Your task to perform on an android device: Do I have any events tomorrow? Image 0: 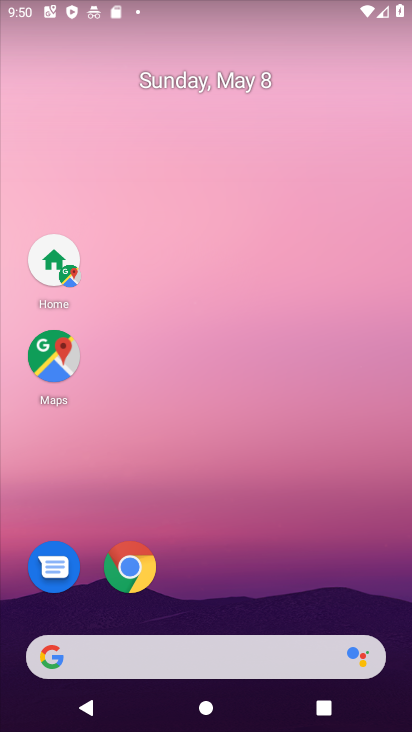
Step 0: drag from (325, 536) to (307, 39)
Your task to perform on an android device: Do I have any events tomorrow? Image 1: 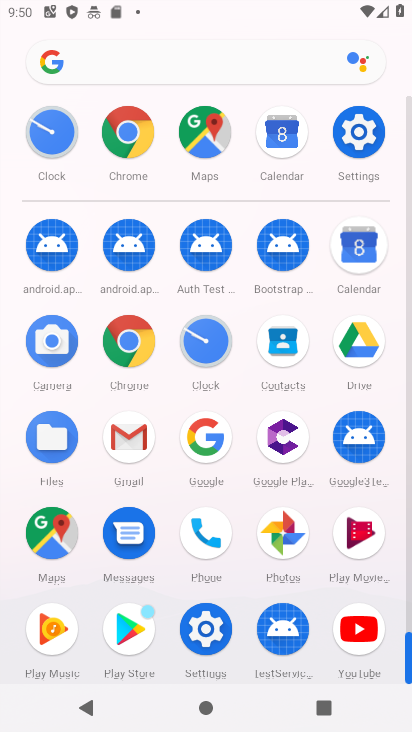
Step 1: click (281, 142)
Your task to perform on an android device: Do I have any events tomorrow? Image 2: 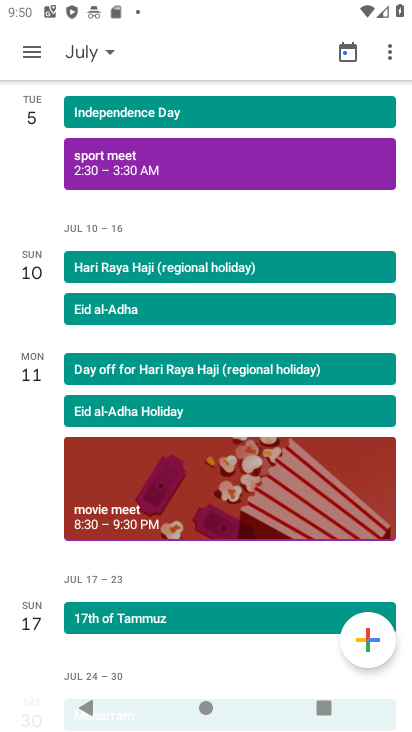
Step 2: click (109, 52)
Your task to perform on an android device: Do I have any events tomorrow? Image 3: 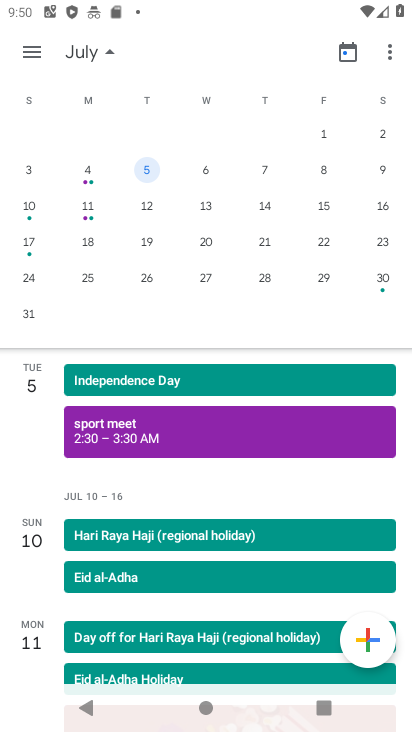
Step 3: drag from (85, 243) to (386, 293)
Your task to perform on an android device: Do I have any events tomorrow? Image 4: 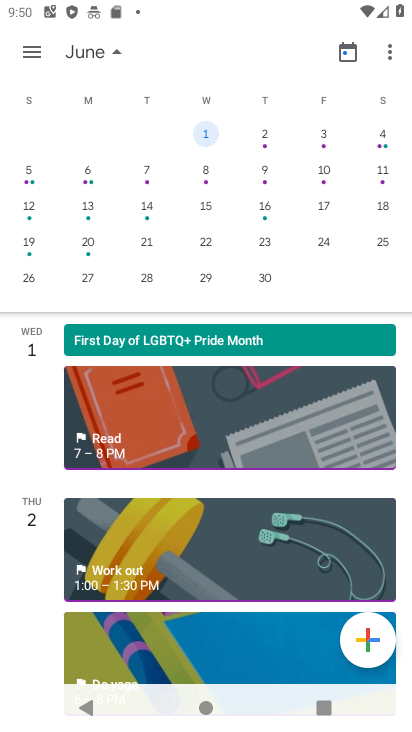
Step 4: drag from (84, 231) to (392, 225)
Your task to perform on an android device: Do I have any events tomorrow? Image 5: 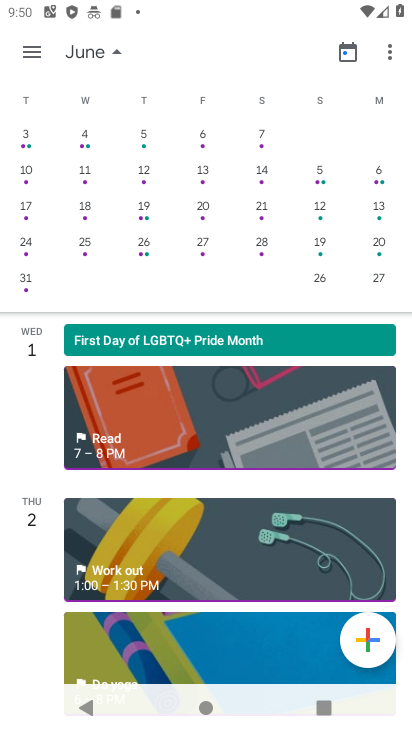
Step 5: drag from (96, 193) to (369, 223)
Your task to perform on an android device: Do I have any events tomorrow? Image 6: 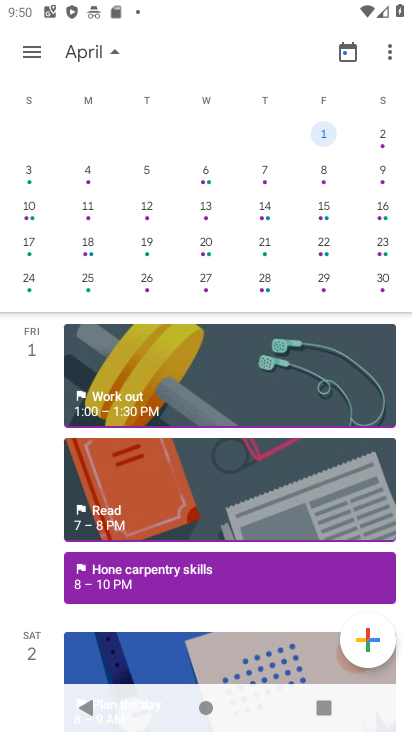
Step 6: drag from (251, 211) to (26, 208)
Your task to perform on an android device: Do I have any events tomorrow? Image 7: 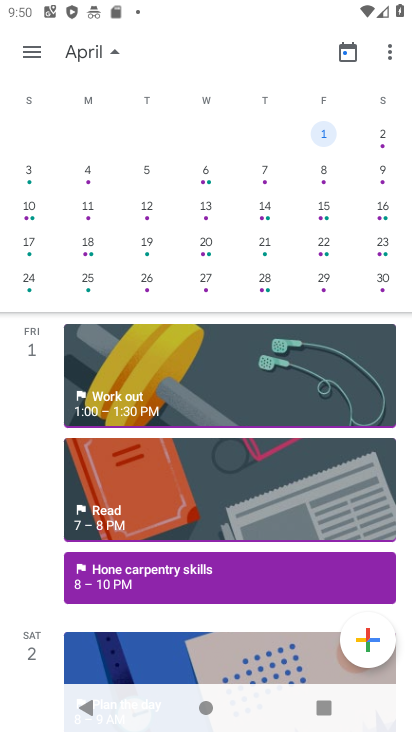
Step 7: click (9, 188)
Your task to perform on an android device: Do I have any events tomorrow? Image 8: 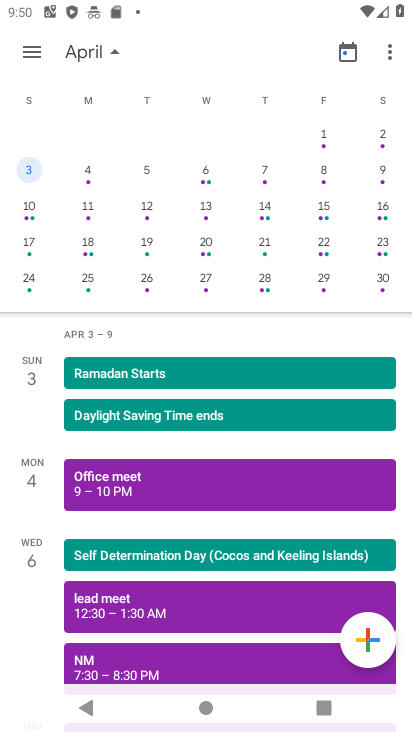
Step 8: click (0, 188)
Your task to perform on an android device: Do I have any events tomorrow? Image 9: 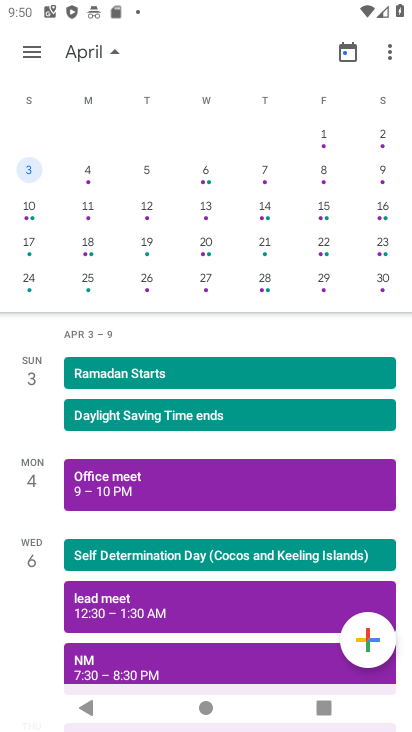
Step 9: drag from (308, 223) to (31, 209)
Your task to perform on an android device: Do I have any events tomorrow? Image 10: 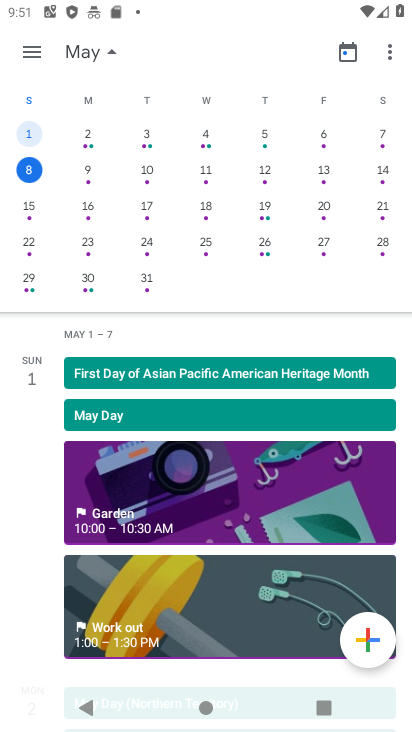
Step 10: drag from (123, 246) to (75, 184)
Your task to perform on an android device: Do I have any events tomorrow? Image 11: 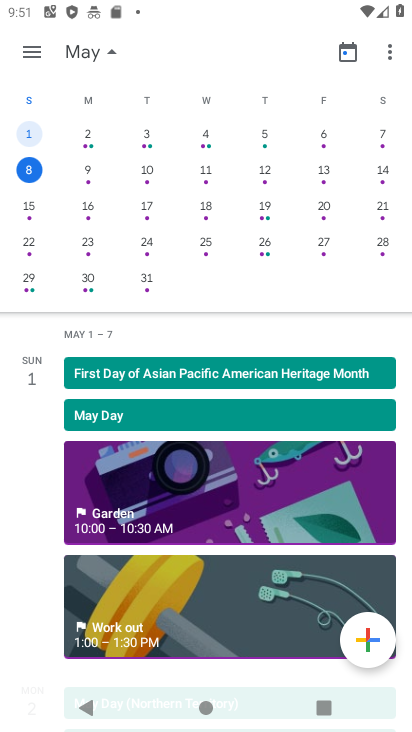
Step 11: drag from (145, 184) to (18, 179)
Your task to perform on an android device: Do I have any events tomorrow? Image 12: 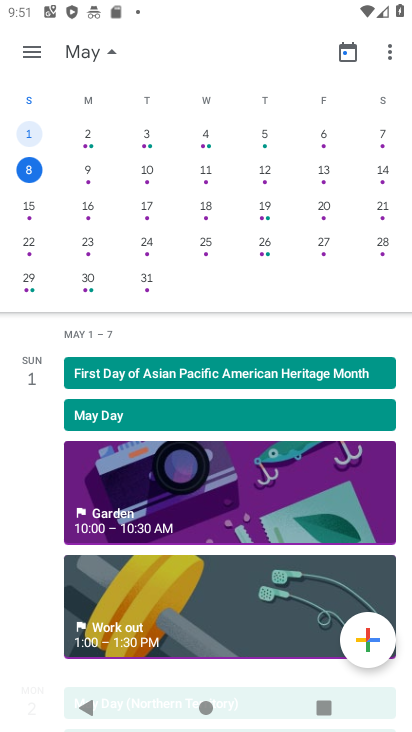
Step 12: drag from (295, 222) to (28, 262)
Your task to perform on an android device: Do I have any events tomorrow? Image 13: 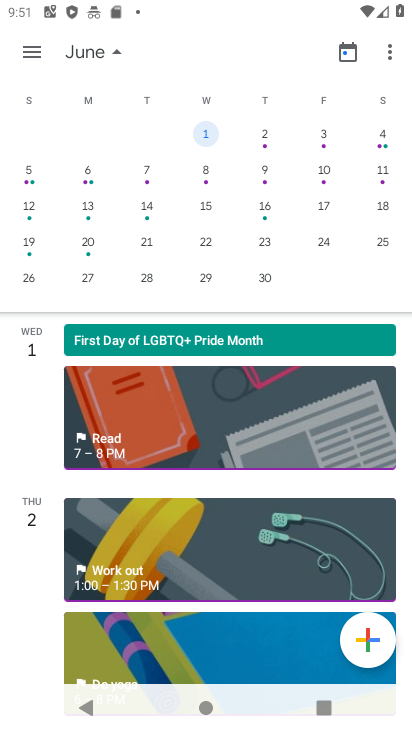
Step 13: drag from (127, 214) to (396, 222)
Your task to perform on an android device: Do I have any events tomorrow? Image 14: 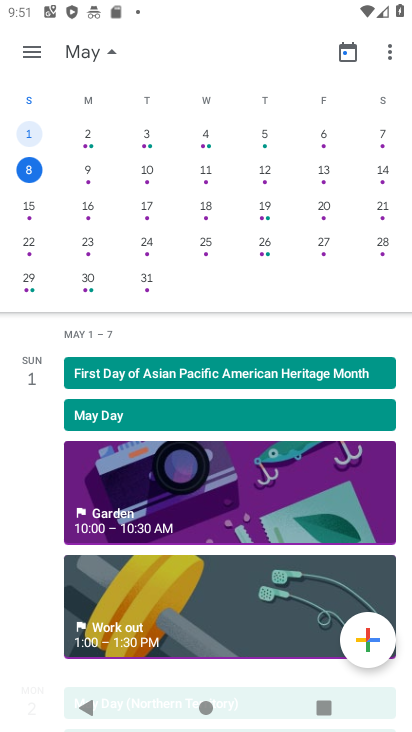
Step 14: drag from (100, 209) to (399, 214)
Your task to perform on an android device: Do I have any events tomorrow? Image 15: 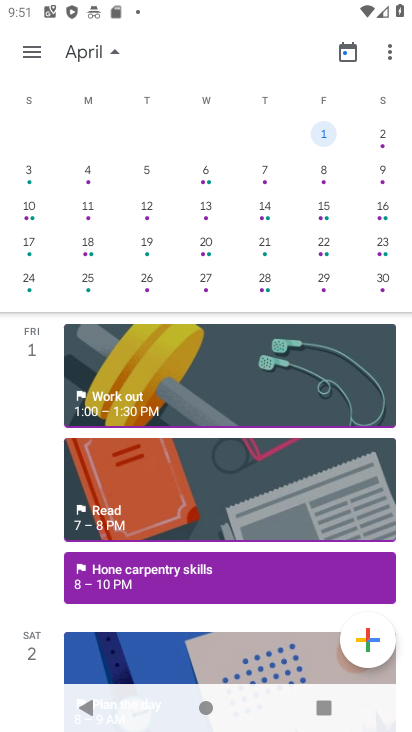
Step 15: click (408, 195)
Your task to perform on an android device: Do I have any events tomorrow? Image 16: 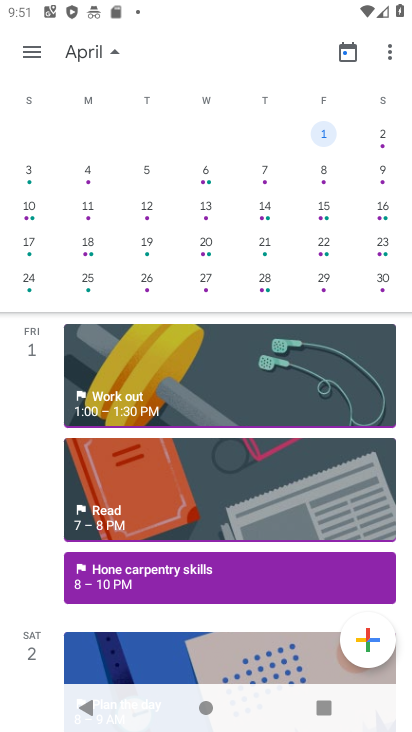
Step 16: drag from (130, 173) to (399, 222)
Your task to perform on an android device: Do I have any events tomorrow? Image 17: 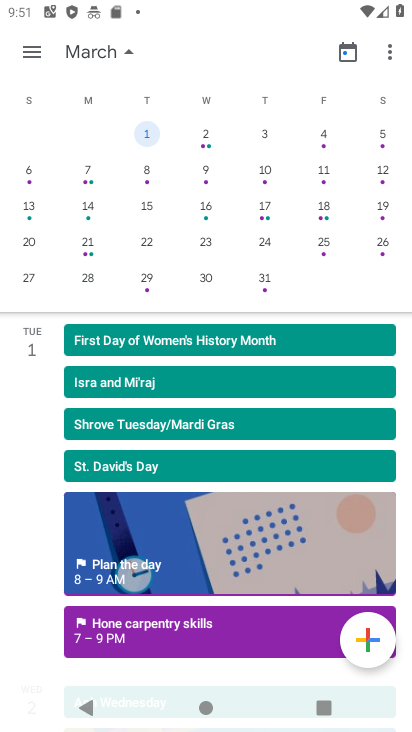
Step 17: drag from (318, 213) to (23, 200)
Your task to perform on an android device: Do I have any events tomorrow? Image 18: 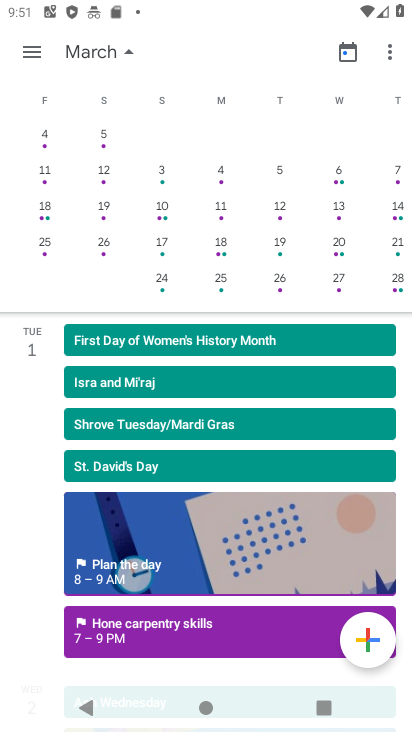
Step 18: drag from (240, 187) to (3, 183)
Your task to perform on an android device: Do I have any events tomorrow? Image 19: 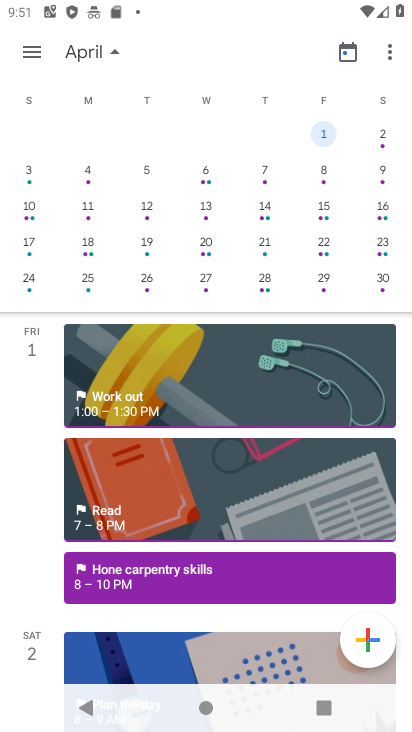
Step 19: drag from (258, 205) to (2, 197)
Your task to perform on an android device: Do I have any events tomorrow? Image 20: 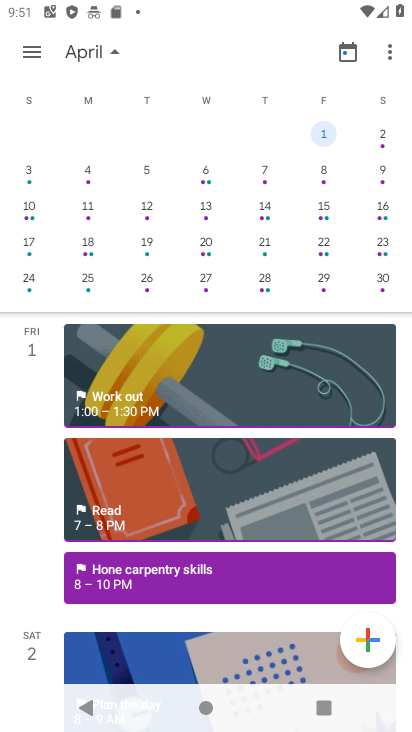
Step 20: drag from (278, 198) to (20, 213)
Your task to perform on an android device: Do I have any events tomorrow? Image 21: 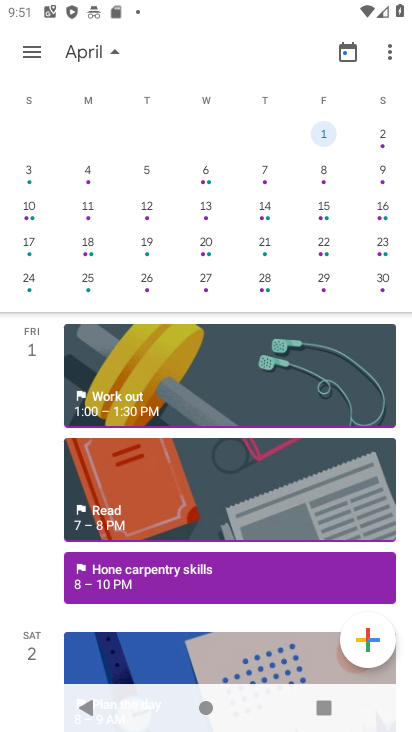
Step 21: drag from (259, 209) to (17, 133)
Your task to perform on an android device: Do I have any events tomorrow? Image 22: 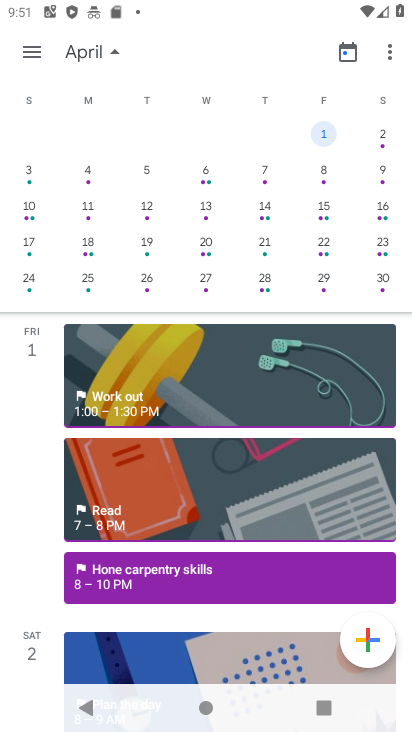
Step 22: drag from (335, 201) to (0, 171)
Your task to perform on an android device: Do I have any events tomorrow? Image 23: 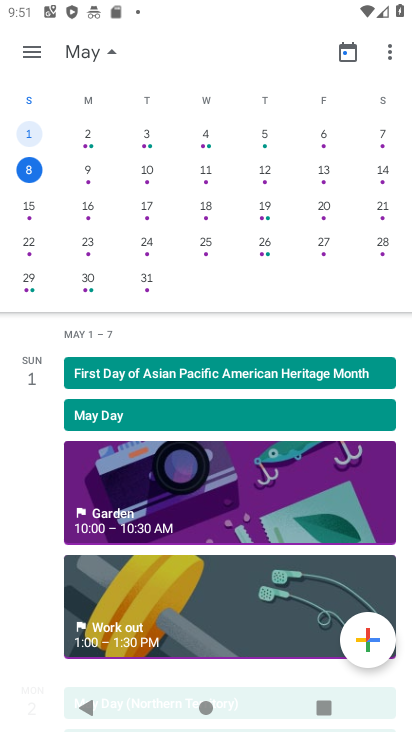
Step 23: drag from (193, 594) to (196, 99)
Your task to perform on an android device: Do I have any events tomorrow? Image 24: 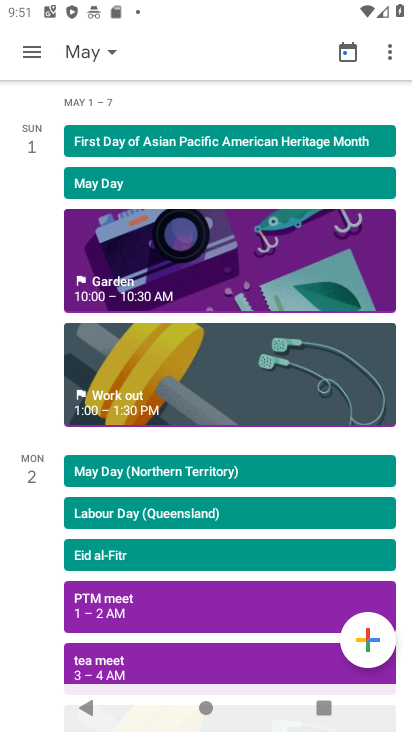
Step 24: drag from (166, 501) to (177, 21)
Your task to perform on an android device: Do I have any events tomorrow? Image 25: 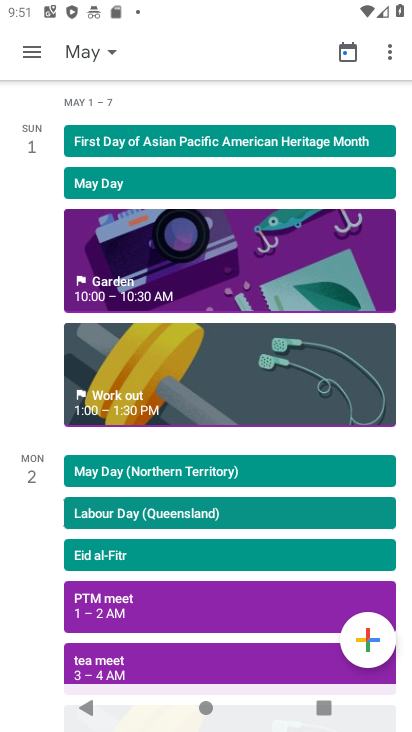
Step 25: drag from (255, 532) to (280, 2)
Your task to perform on an android device: Do I have any events tomorrow? Image 26: 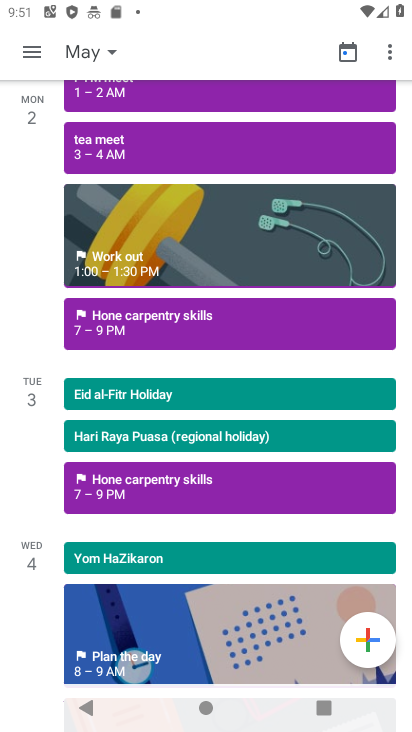
Step 26: drag from (270, 623) to (189, 61)
Your task to perform on an android device: Do I have any events tomorrow? Image 27: 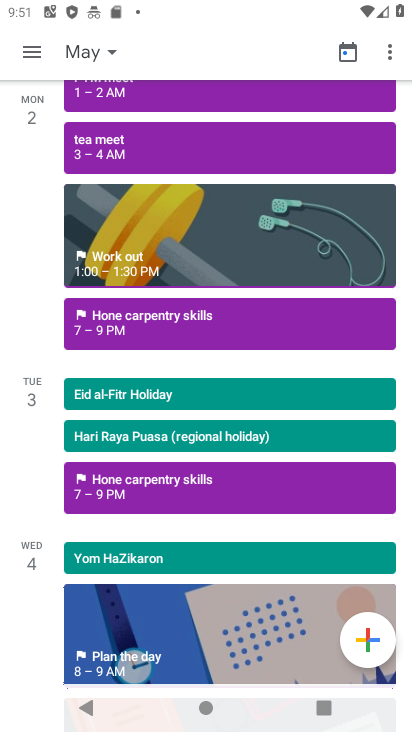
Step 27: drag from (178, 283) to (147, 43)
Your task to perform on an android device: Do I have any events tomorrow? Image 28: 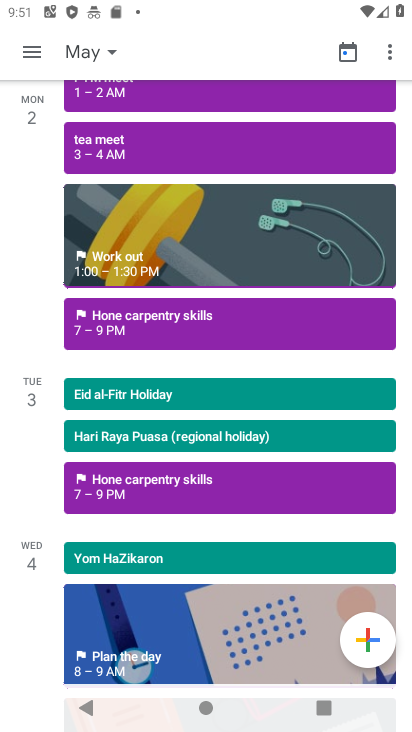
Step 28: drag from (139, 582) to (139, 144)
Your task to perform on an android device: Do I have any events tomorrow? Image 29: 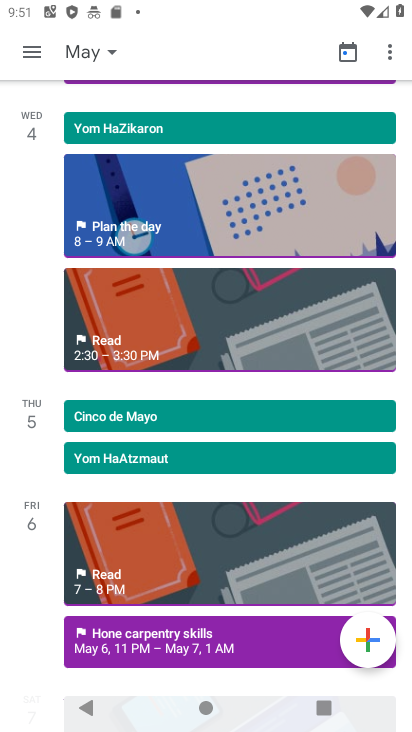
Step 29: drag from (169, 580) to (141, 22)
Your task to perform on an android device: Do I have any events tomorrow? Image 30: 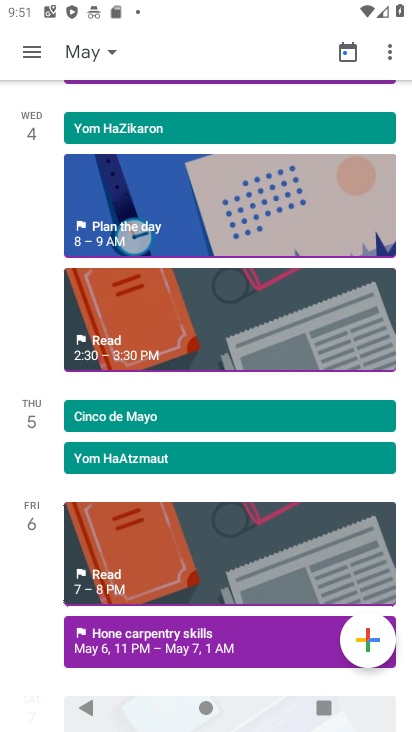
Step 30: drag from (187, 499) to (150, 110)
Your task to perform on an android device: Do I have any events tomorrow? Image 31: 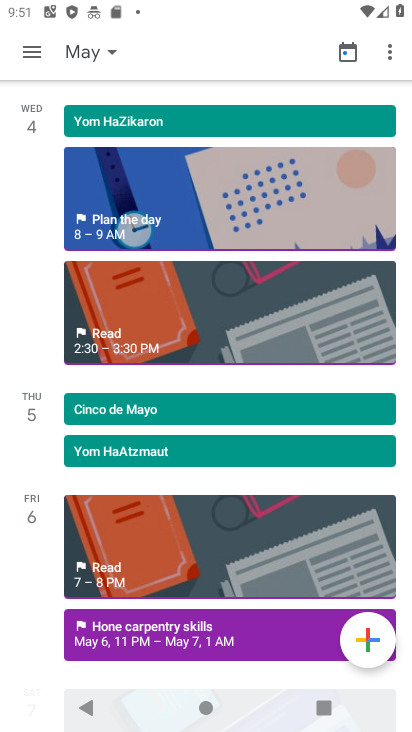
Step 31: drag from (169, 550) to (96, 10)
Your task to perform on an android device: Do I have any events tomorrow? Image 32: 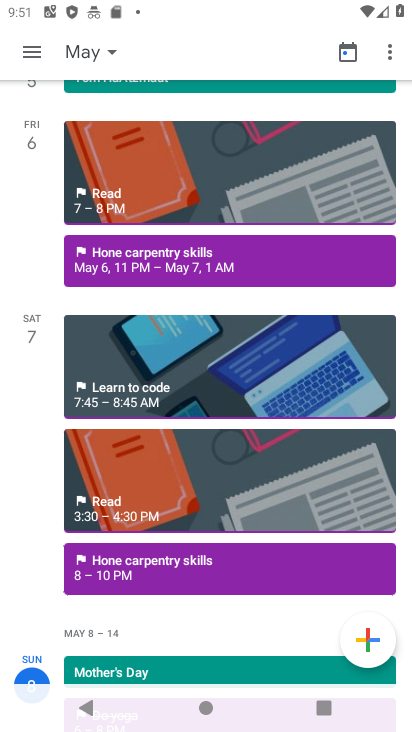
Step 32: drag from (134, 523) to (132, 42)
Your task to perform on an android device: Do I have any events tomorrow? Image 33: 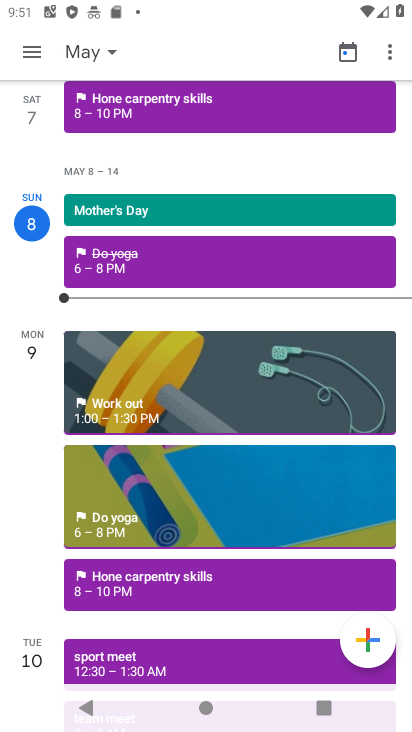
Step 33: drag from (152, 484) to (191, 172)
Your task to perform on an android device: Do I have any events tomorrow? Image 34: 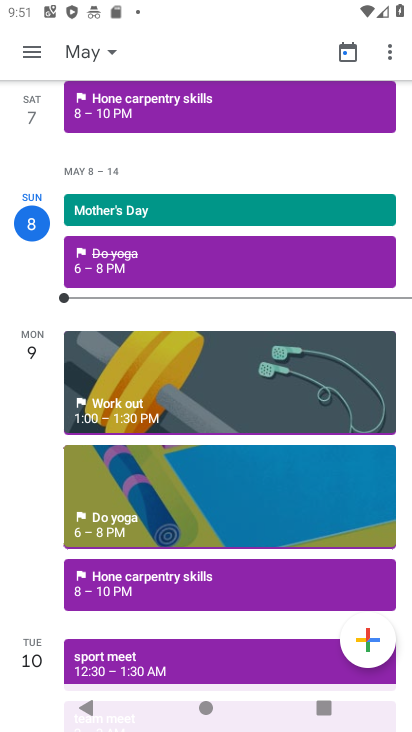
Step 34: drag from (174, 597) to (171, 95)
Your task to perform on an android device: Do I have any events tomorrow? Image 35: 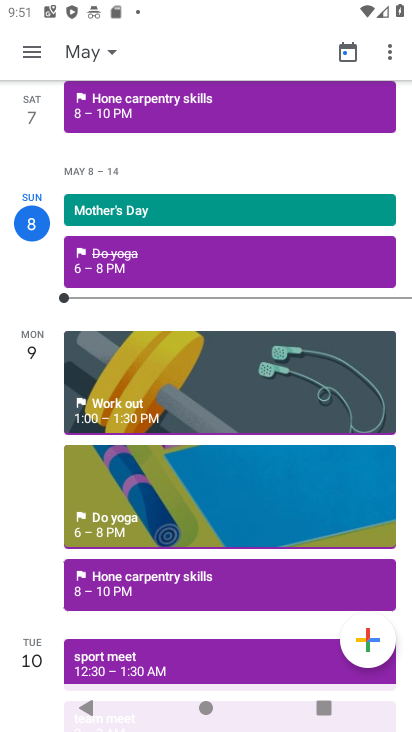
Step 35: drag from (218, 521) to (112, 68)
Your task to perform on an android device: Do I have any events tomorrow? Image 36: 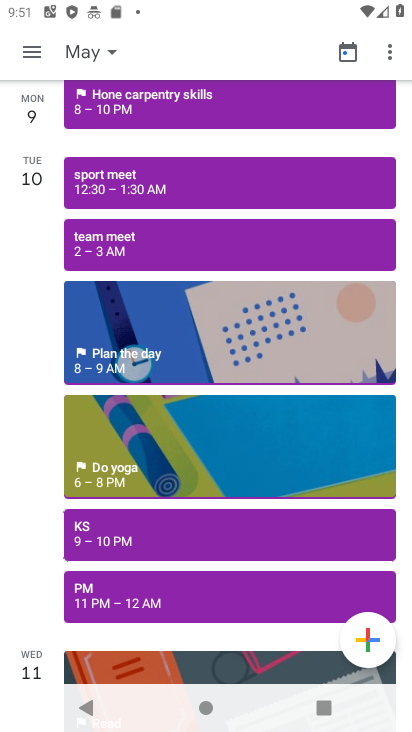
Step 36: drag from (80, 579) to (63, 231)
Your task to perform on an android device: Do I have any events tomorrow? Image 37: 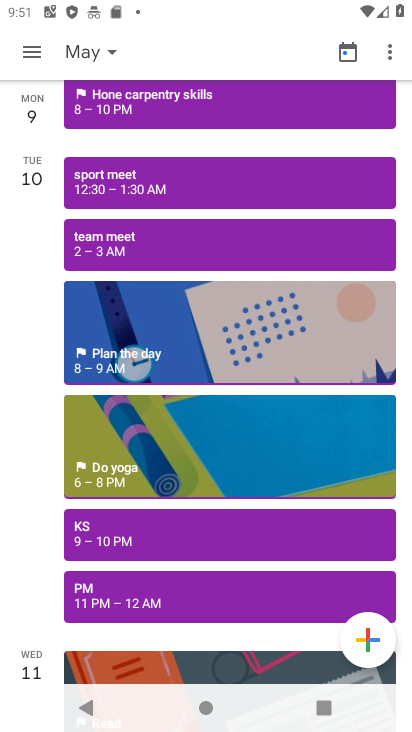
Step 37: drag from (115, 540) to (106, 130)
Your task to perform on an android device: Do I have any events tomorrow? Image 38: 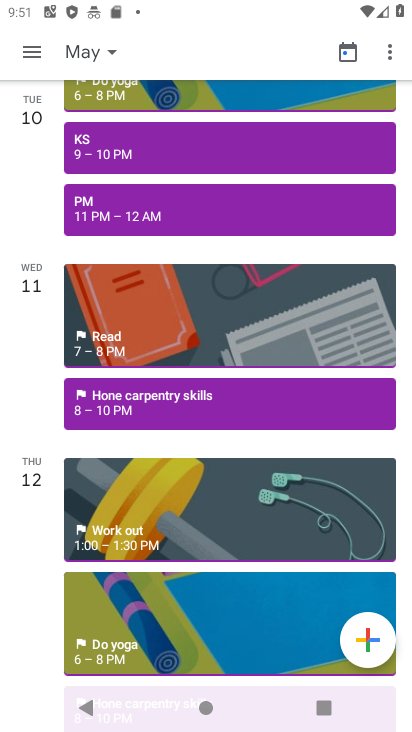
Step 38: drag from (219, 561) to (163, 134)
Your task to perform on an android device: Do I have any events tomorrow? Image 39: 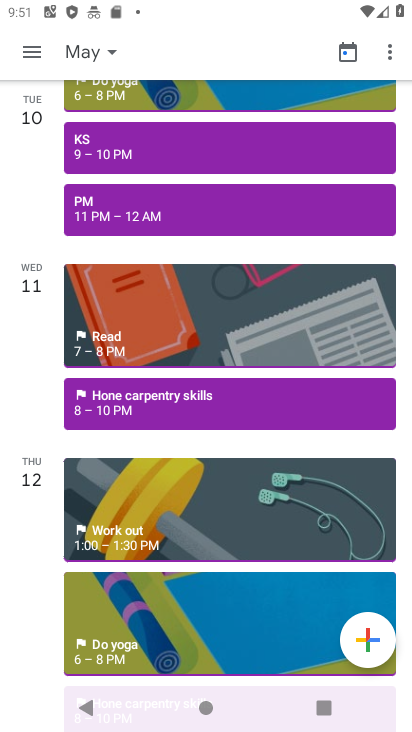
Step 39: drag from (161, 497) to (121, 93)
Your task to perform on an android device: Do I have any events tomorrow? Image 40: 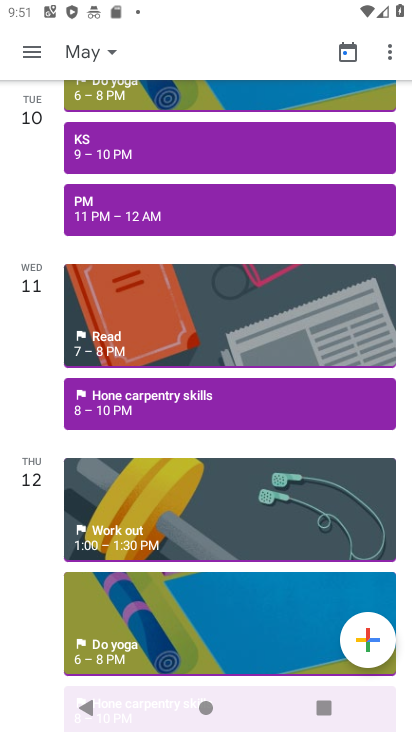
Step 40: click (144, 109)
Your task to perform on an android device: Do I have any events tomorrow? Image 41: 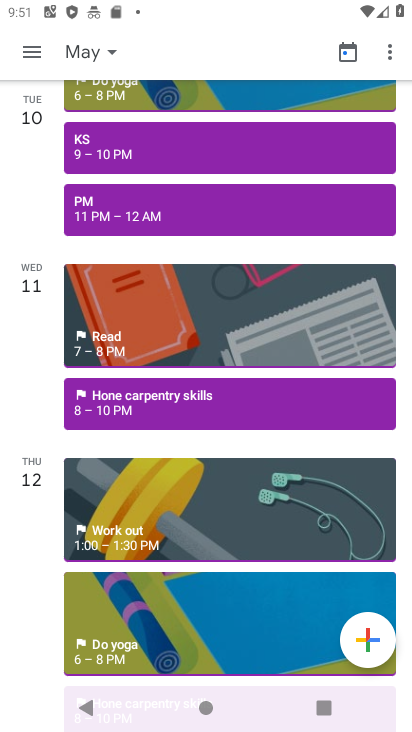
Step 41: click (144, 134)
Your task to perform on an android device: Do I have any events tomorrow? Image 42: 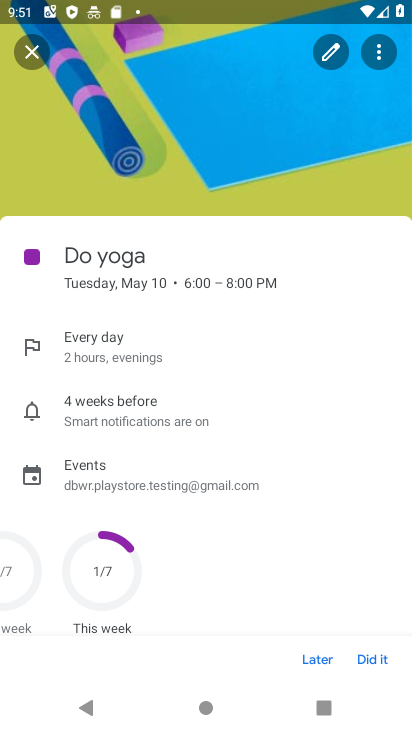
Step 42: task complete